Your task to perform on an android device: Open calendar and show me the second week of next month Image 0: 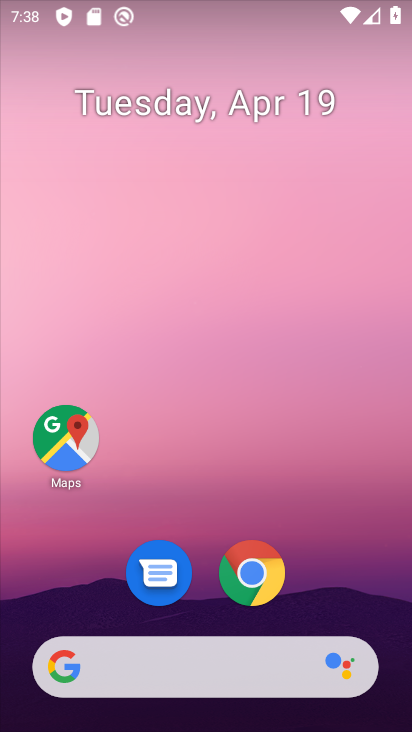
Step 0: drag from (264, 684) to (212, 116)
Your task to perform on an android device: Open calendar and show me the second week of next month Image 1: 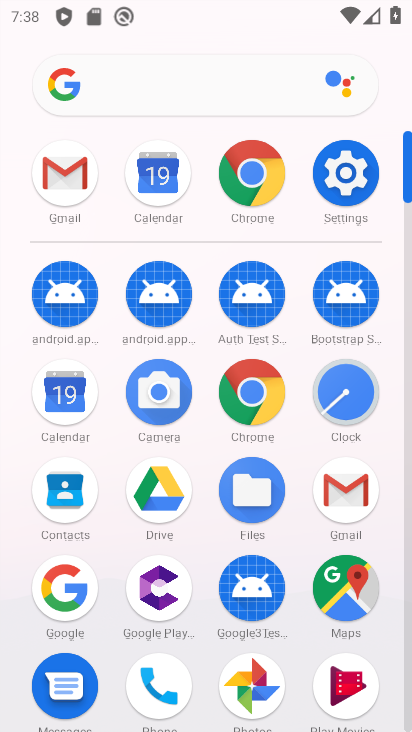
Step 1: click (78, 398)
Your task to perform on an android device: Open calendar and show me the second week of next month Image 2: 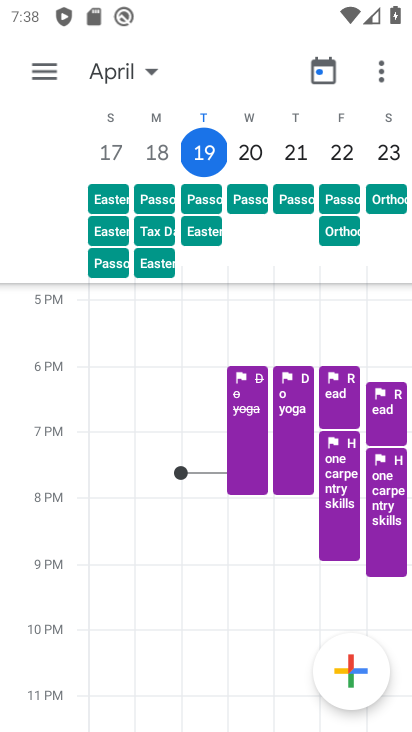
Step 2: click (46, 76)
Your task to perform on an android device: Open calendar and show me the second week of next month Image 3: 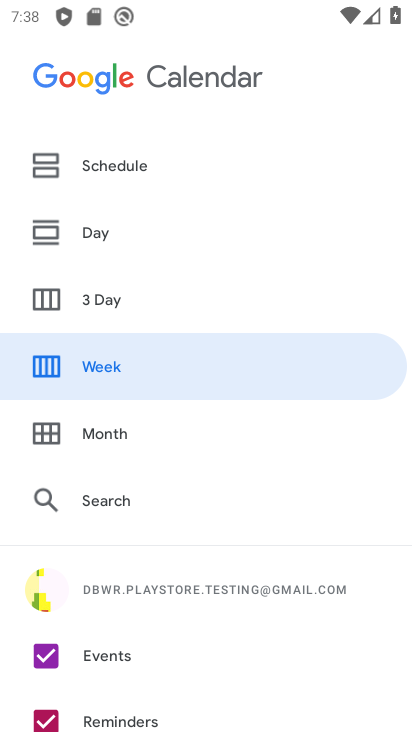
Step 3: click (115, 439)
Your task to perform on an android device: Open calendar and show me the second week of next month Image 4: 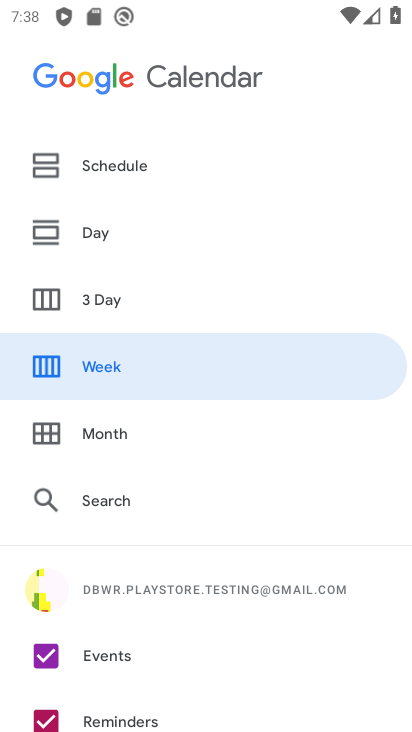
Step 4: click (103, 434)
Your task to perform on an android device: Open calendar and show me the second week of next month Image 5: 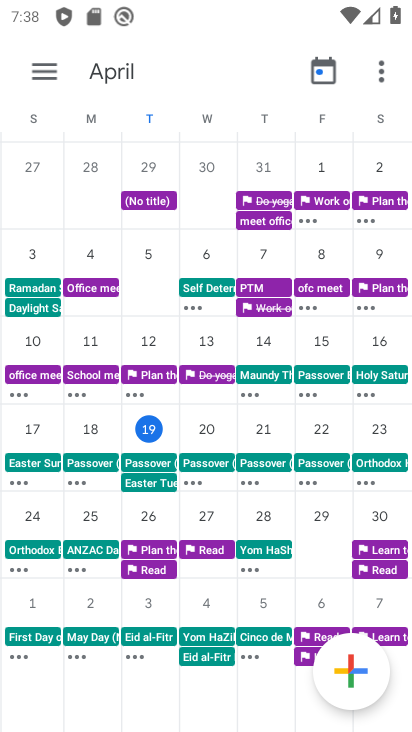
Step 5: drag from (372, 433) to (0, 497)
Your task to perform on an android device: Open calendar and show me the second week of next month Image 6: 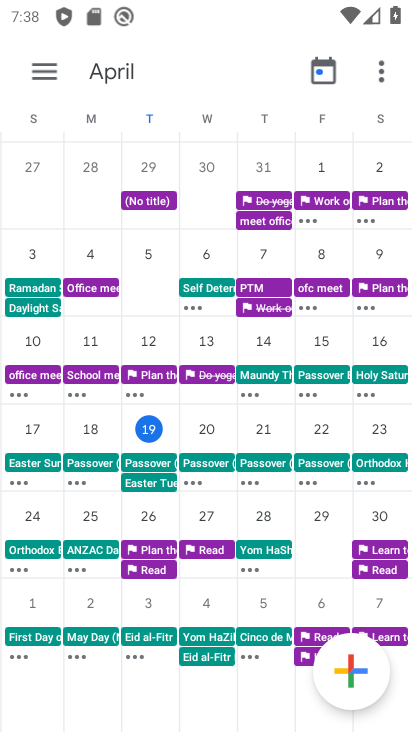
Step 6: drag from (375, 502) to (1, 550)
Your task to perform on an android device: Open calendar and show me the second week of next month Image 7: 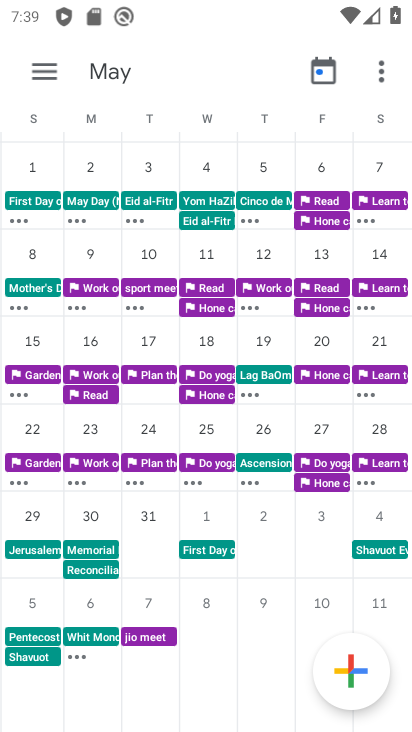
Step 7: click (86, 255)
Your task to perform on an android device: Open calendar and show me the second week of next month Image 8: 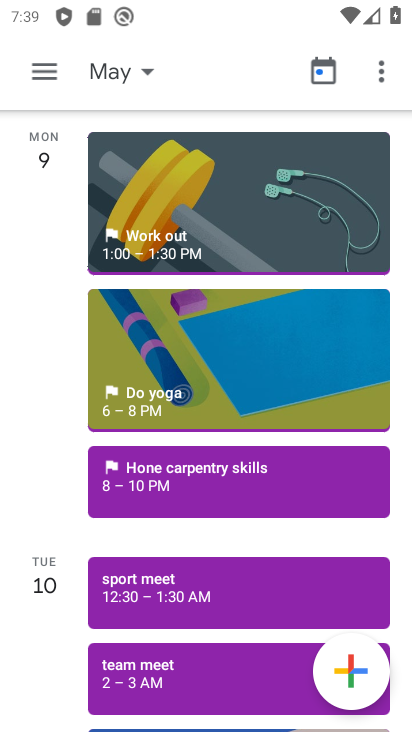
Step 8: task complete